Your task to perform on an android device: What's the news this week? Image 0: 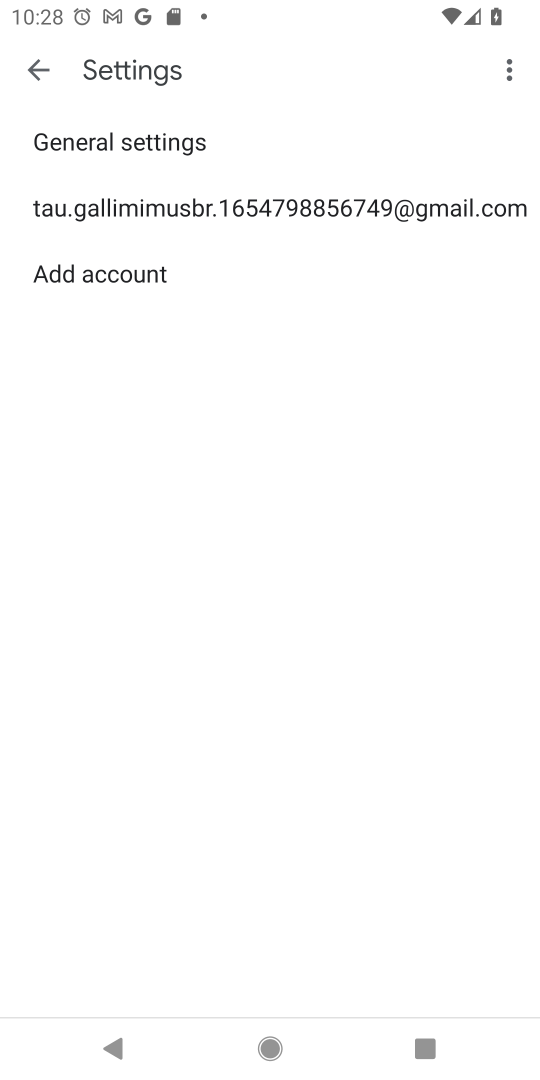
Step 0: press home button
Your task to perform on an android device: What's the news this week? Image 1: 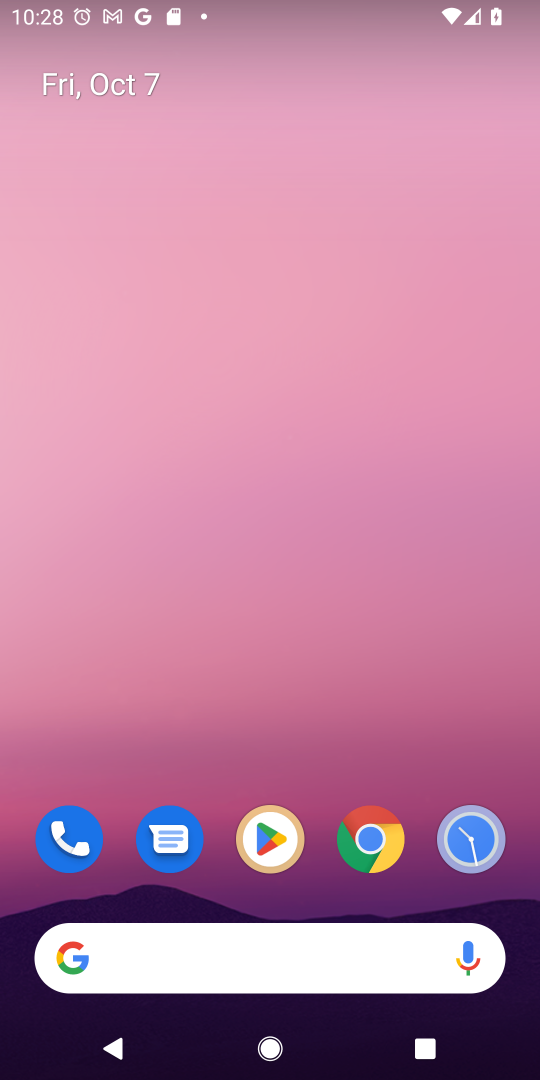
Step 1: click (385, 845)
Your task to perform on an android device: What's the news this week? Image 2: 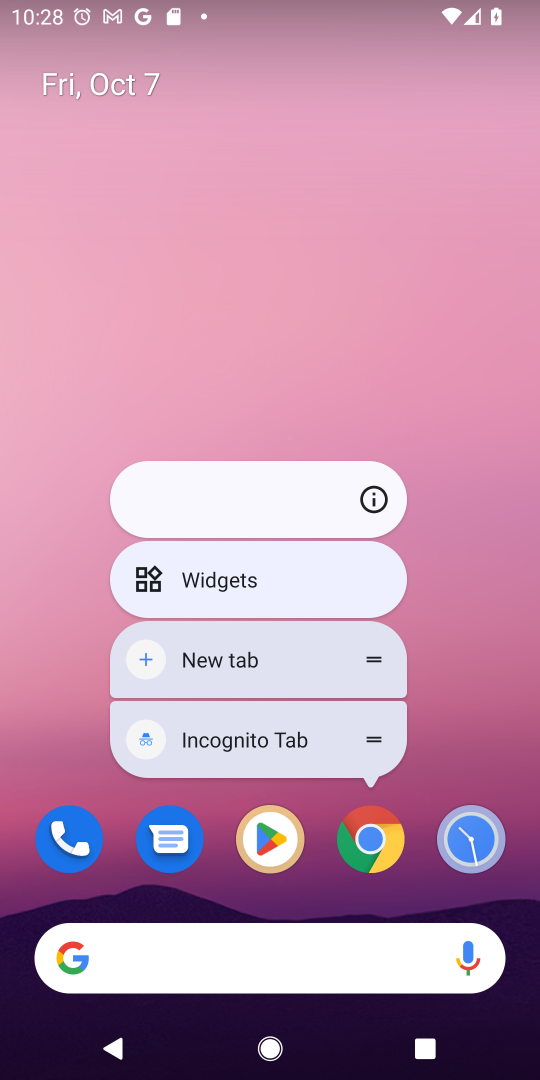
Step 2: click (385, 845)
Your task to perform on an android device: What's the news this week? Image 3: 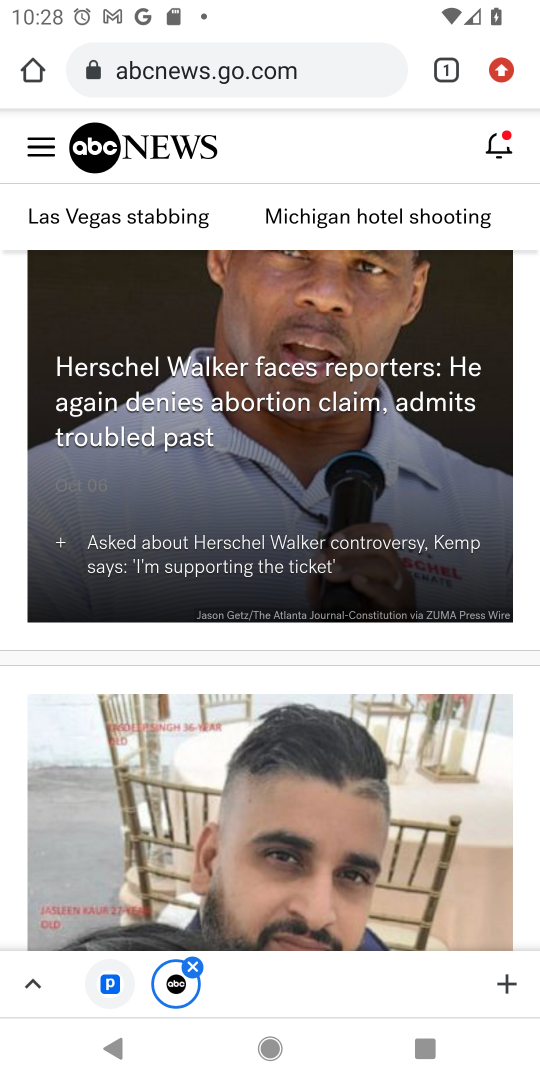
Step 3: click (334, 56)
Your task to perform on an android device: What's the news this week? Image 4: 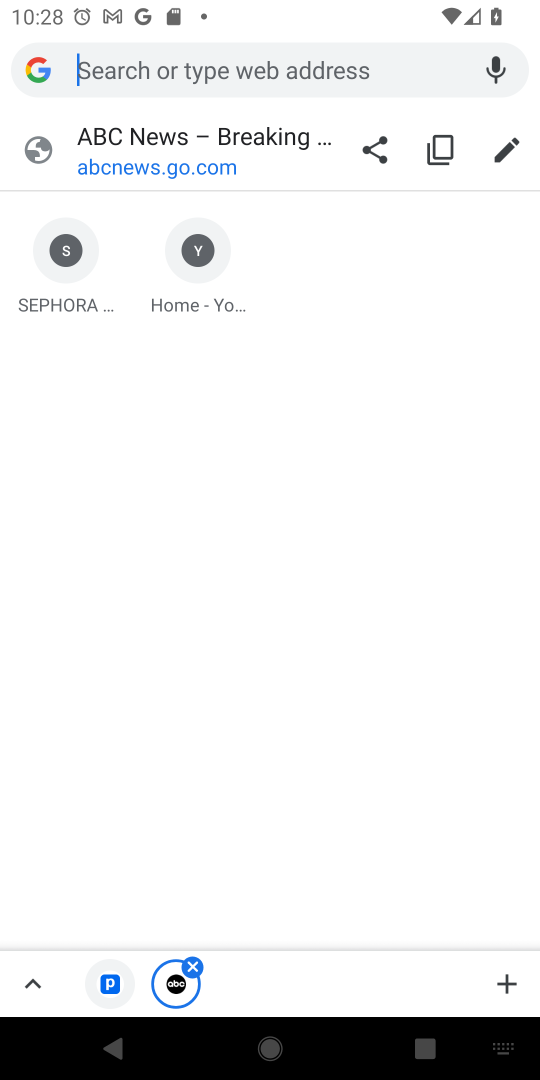
Step 4: type "what the news this week"
Your task to perform on an android device: What's the news this week? Image 5: 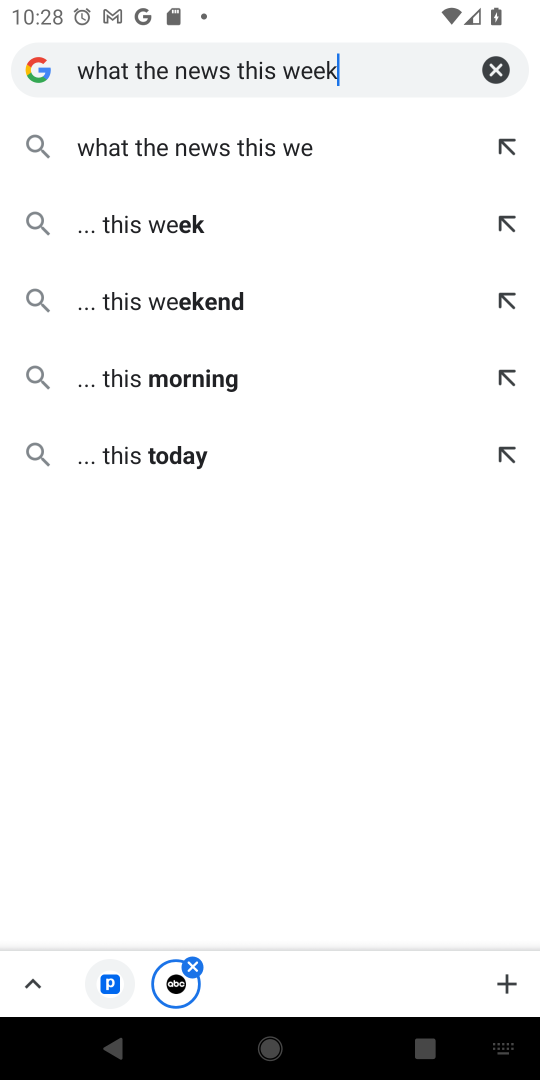
Step 5: type ""
Your task to perform on an android device: What's the news this week? Image 6: 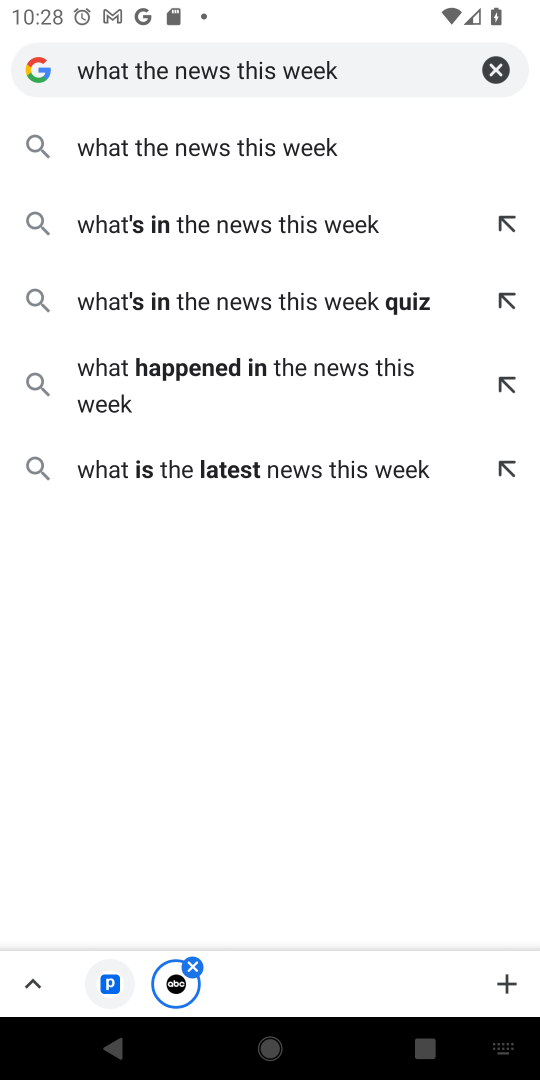
Step 6: click (188, 148)
Your task to perform on an android device: What's the news this week? Image 7: 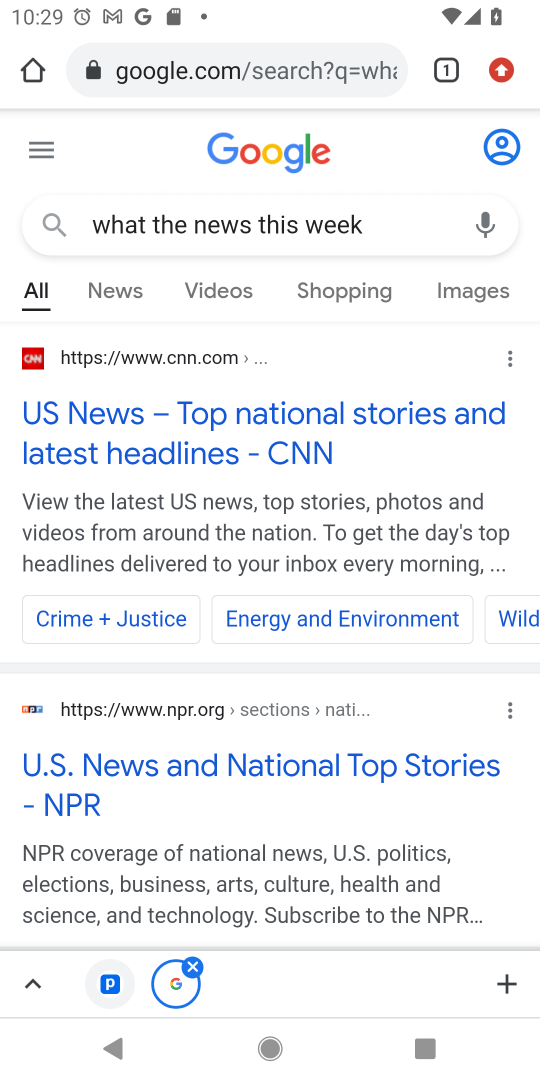
Step 7: drag from (302, 617) to (457, 152)
Your task to perform on an android device: What's the news this week? Image 8: 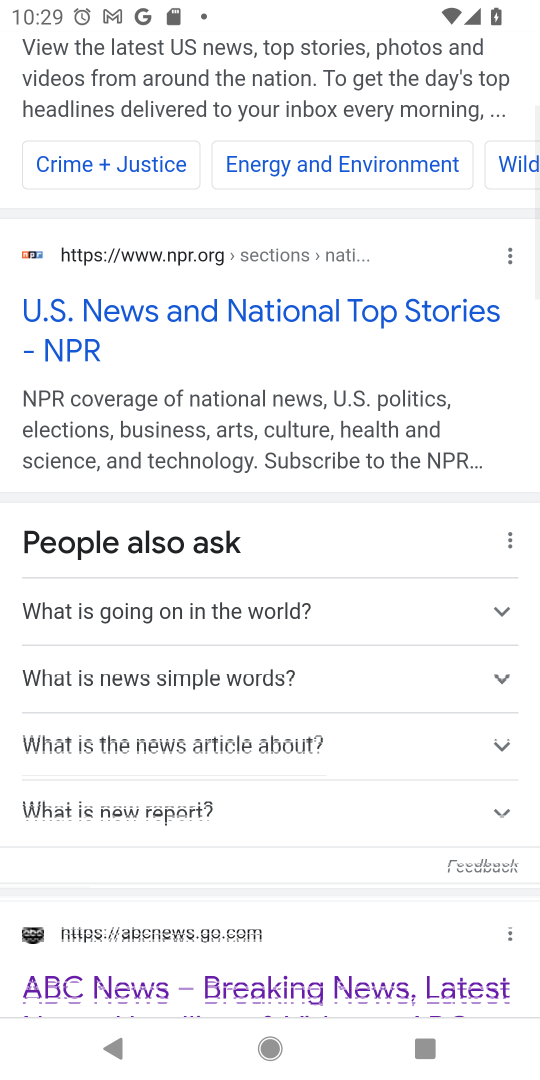
Step 8: drag from (280, 742) to (341, 469)
Your task to perform on an android device: What's the news this week? Image 9: 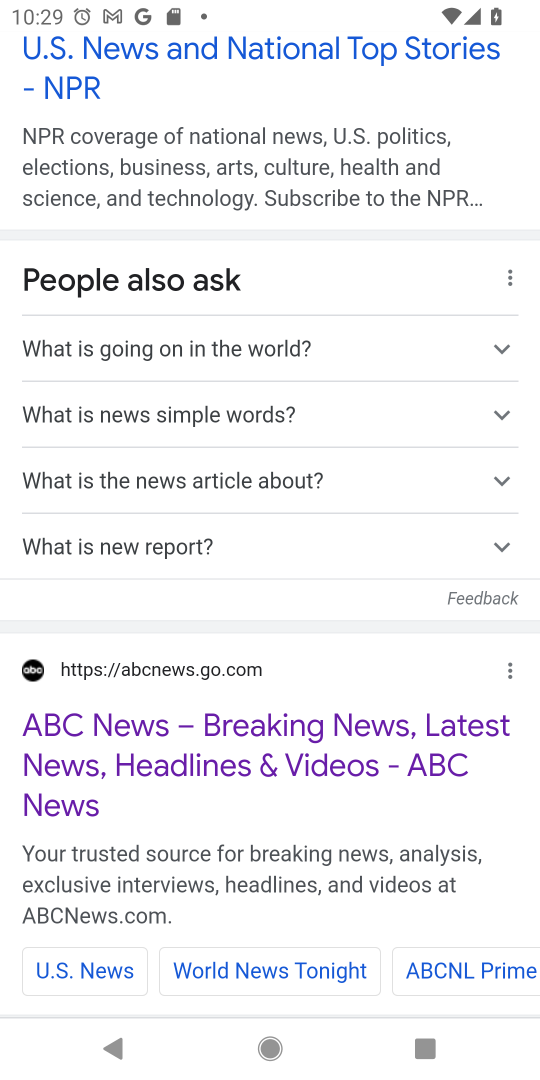
Step 9: drag from (369, 348) to (429, 823)
Your task to perform on an android device: What's the news this week? Image 10: 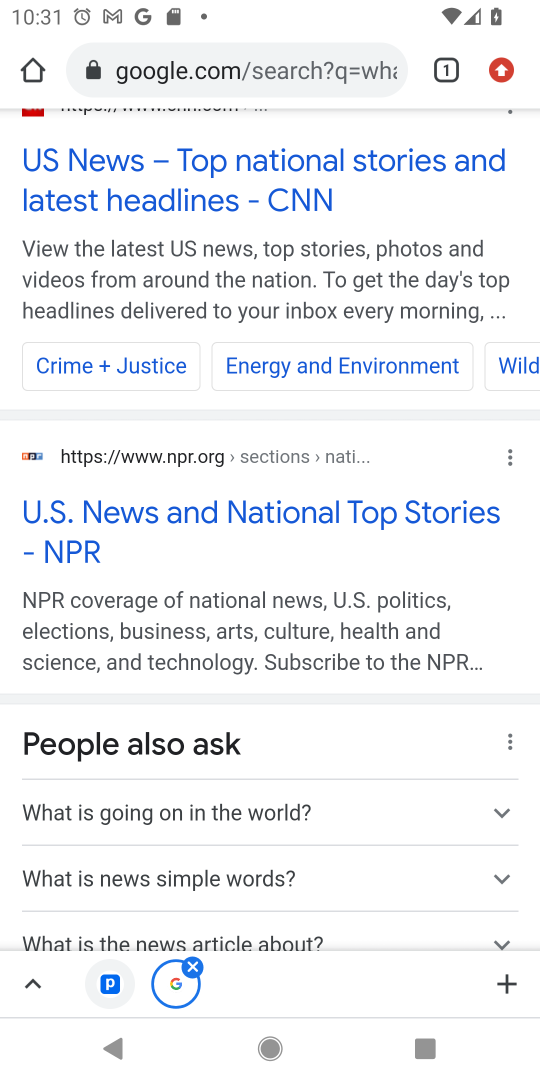
Step 10: drag from (226, 540) to (318, 285)
Your task to perform on an android device: What's the news this week? Image 11: 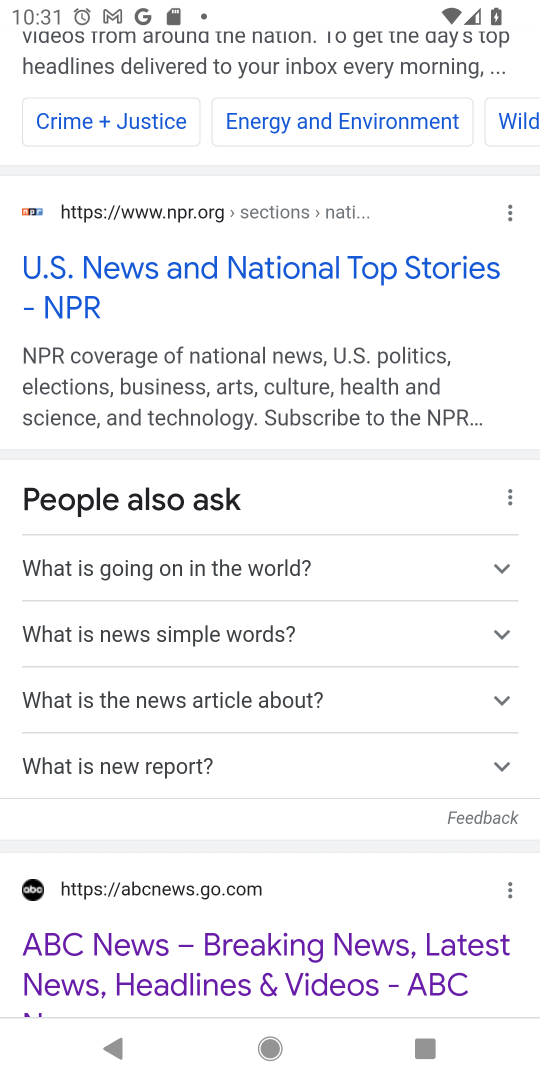
Step 11: click (126, 274)
Your task to perform on an android device: What's the news this week? Image 12: 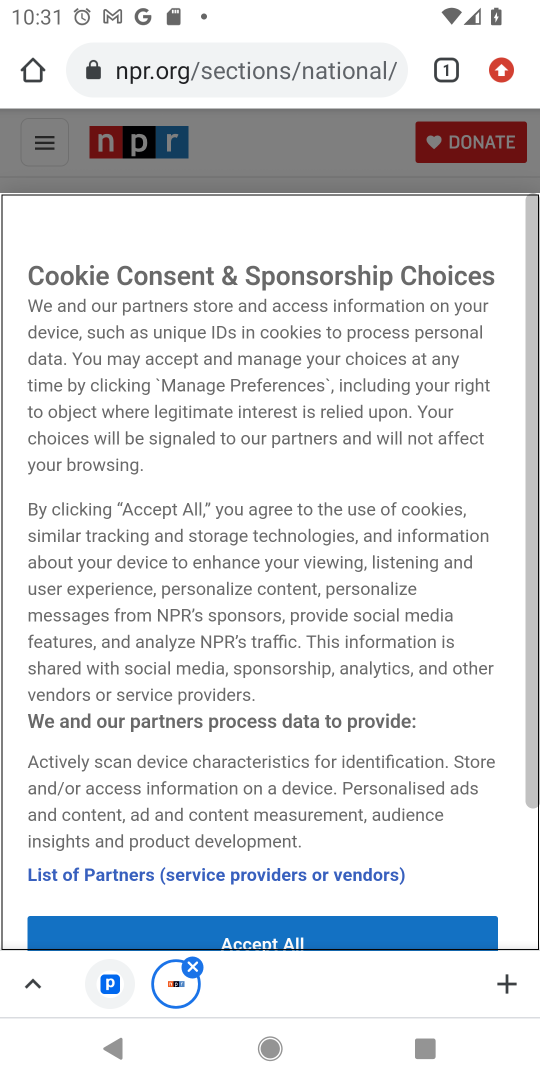
Step 12: drag from (160, 569) to (237, 360)
Your task to perform on an android device: What's the news this week? Image 13: 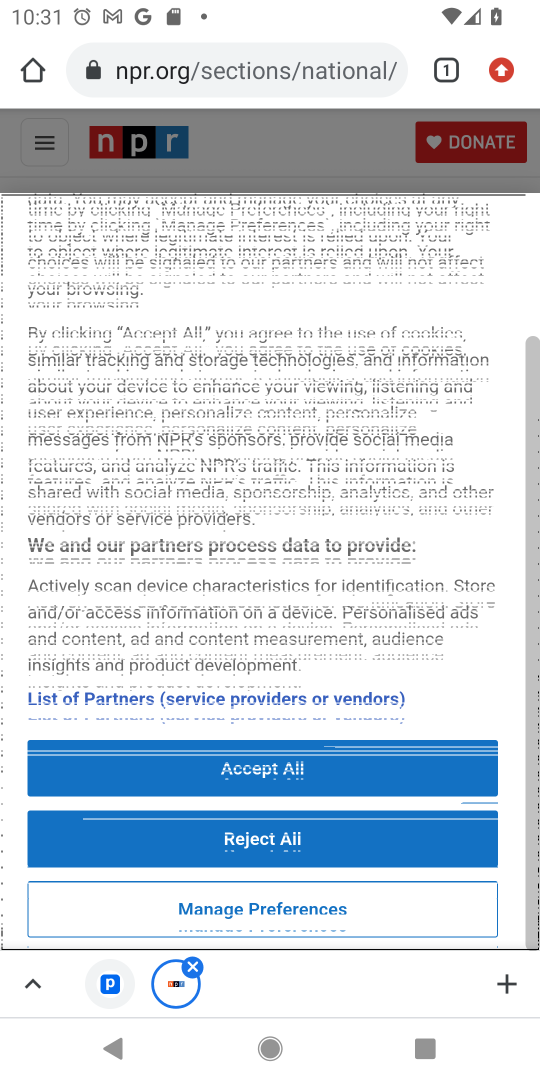
Step 13: click (288, 767)
Your task to perform on an android device: What's the news this week? Image 14: 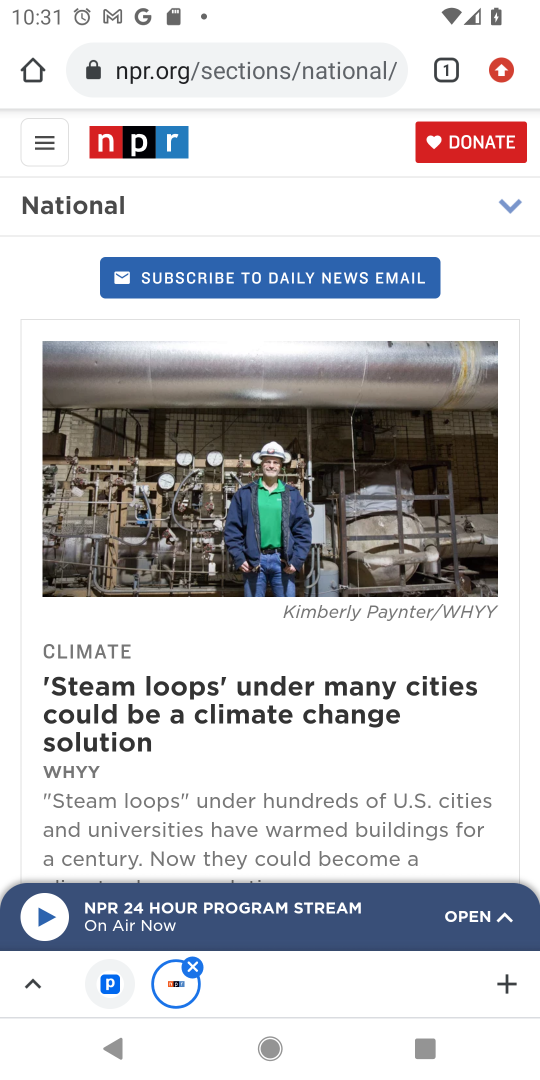
Step 14: task complete